Your task to perform on an android device: Open CNN.com Image 0: 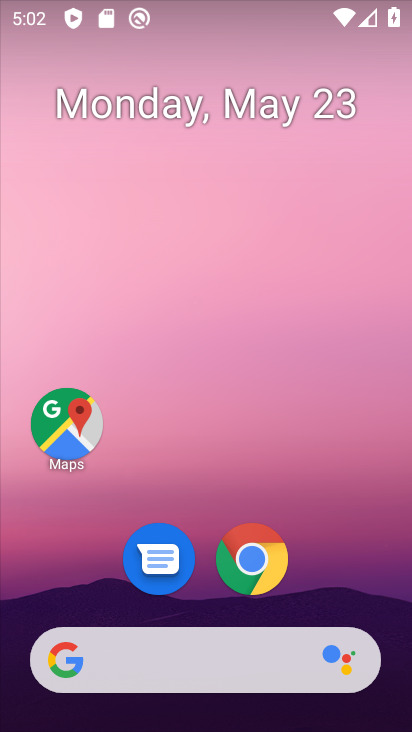
Step 0: drag from (322, 663) to (400, 55)
Your task to perform on an android device: Open CNN.com Image 1: 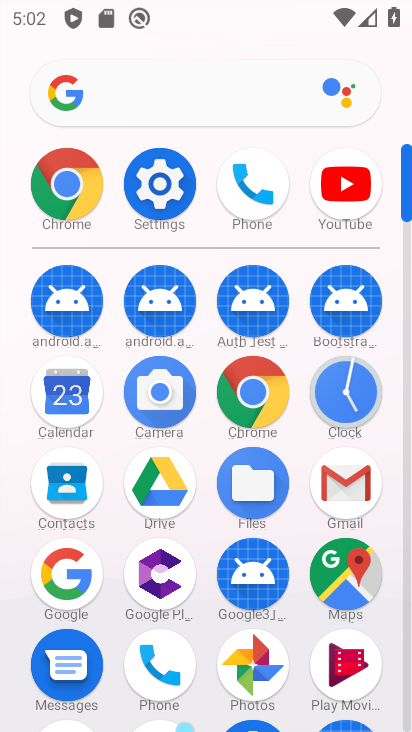
Step 1: click (247, 399)
Your task to perform on an android device: Open CNN.com Image 2: 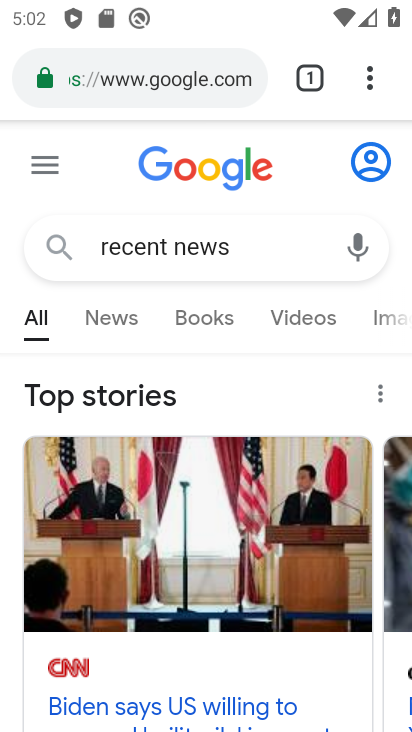
Step 2: click (203, 92)
Your task to perform on an android device: Open CNN.com Image 3: 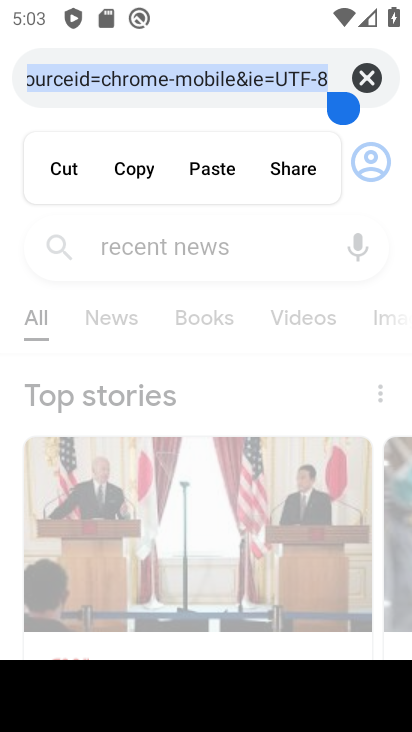
Step 3: click (375, 77)
Your task to perform on an android device: Open CNN.com Image 4: 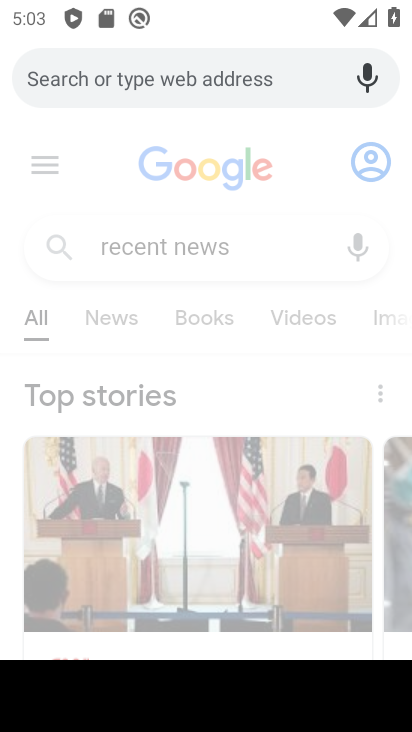
Step 4: type "cnn.com"
Your task to perform on an android device: Open CNN.com Image 5: 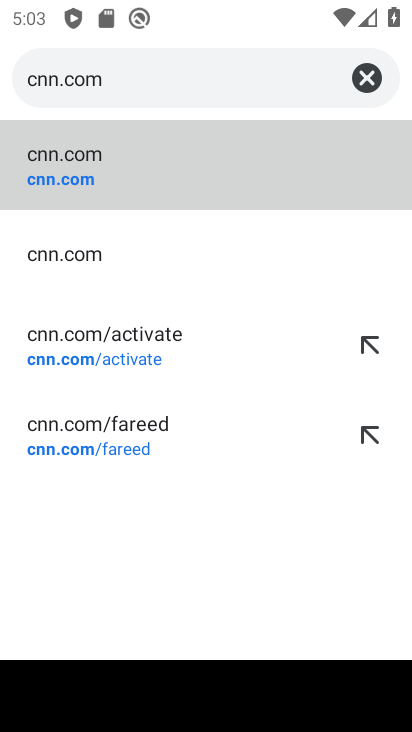
Step 5: click (232, 148)
Your task to perform on an android device: Open CNN.com Image 6: 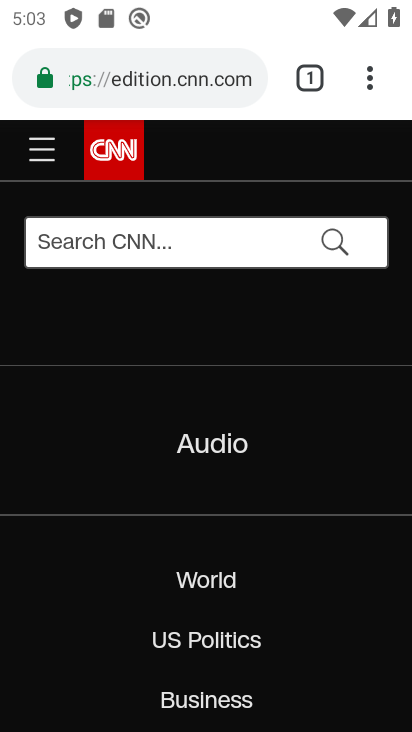
Step 6: task complete